Your task to perform on an android device: check storage Image 0: 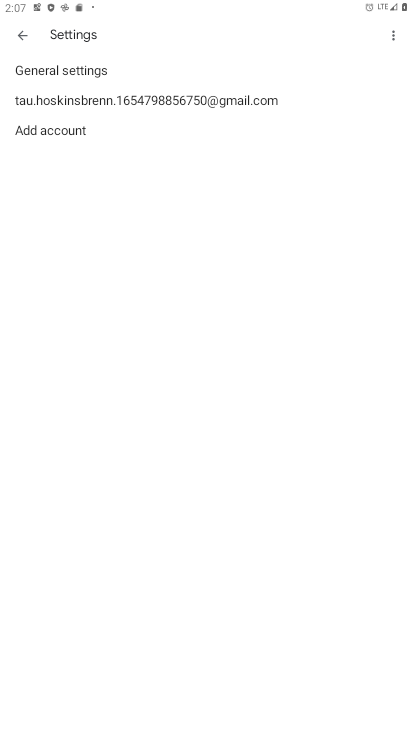
Step 0: press home button
Your task to perform on an android device: check storage Image 1: 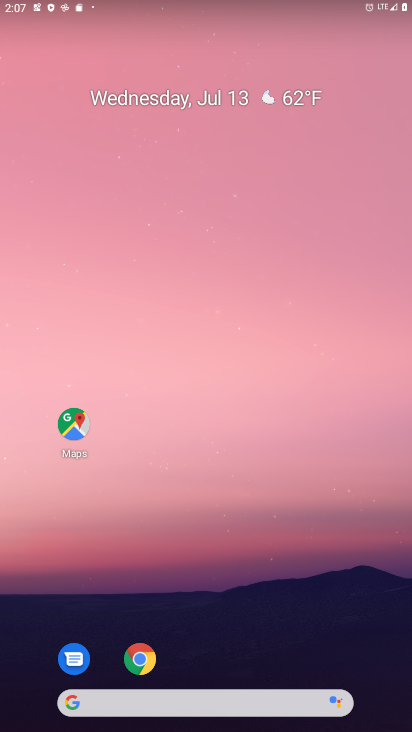
Step 1: drag from (239, 726) to (239, 201)
Your task to perform on an android device: check storage Image 2: 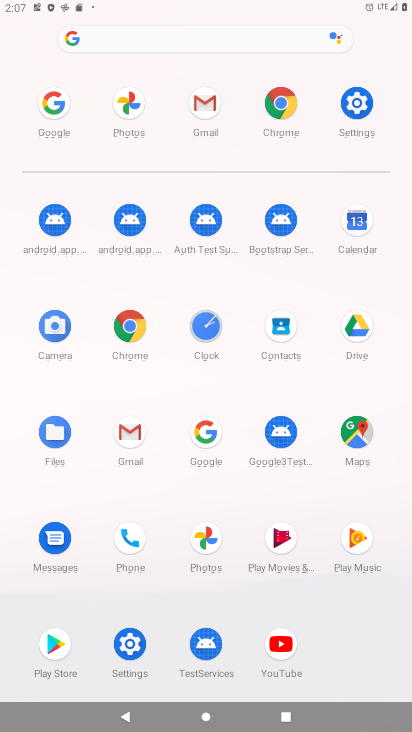
Step 2: click (356, 96)
Your task to perform on an android device: check storage Image 3: 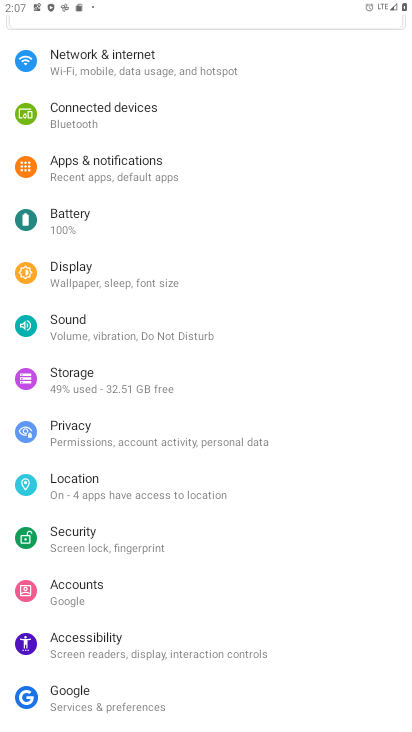
Step 3: click (76, 374)
Your task to perform on an android device: check storage Image 4: 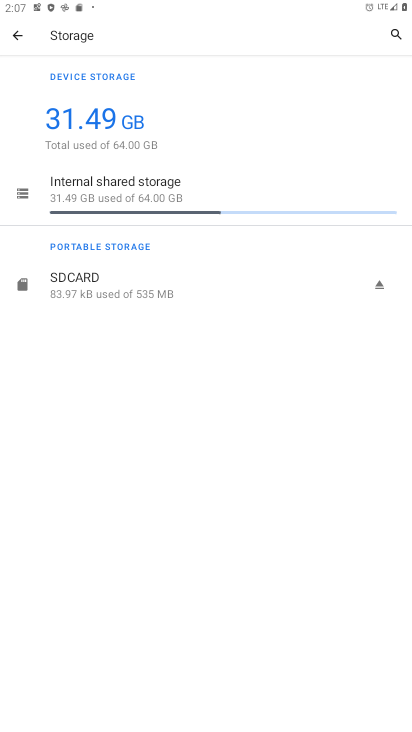
Step 4: task complete